Your task to perform on an android device: open the mobile data screen to see how much data has been used Image 0: 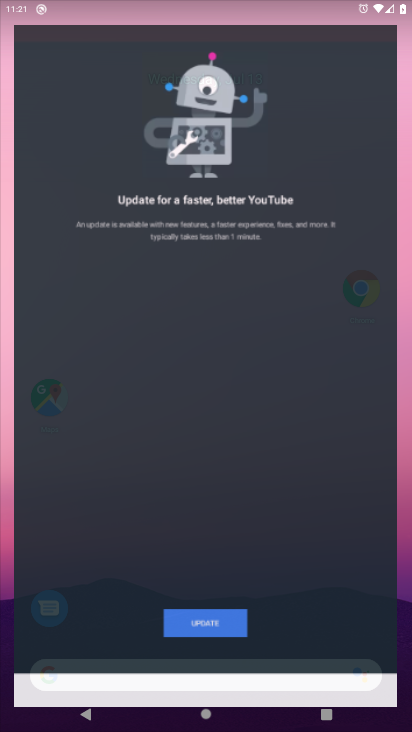
Step 0: click (117, 666)
Your task to perform on an android device: open the mobile data screen to see how much data has been used Image 1: 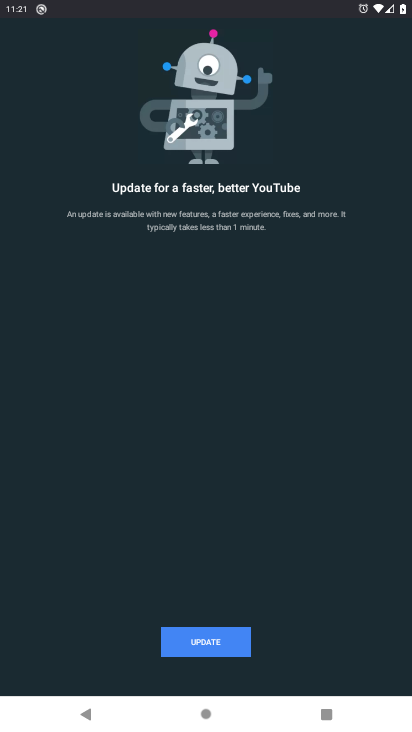
Step 1: press home button
Your task to perform on an android device: open the mobile data screen to see how much data has been used Image 2: 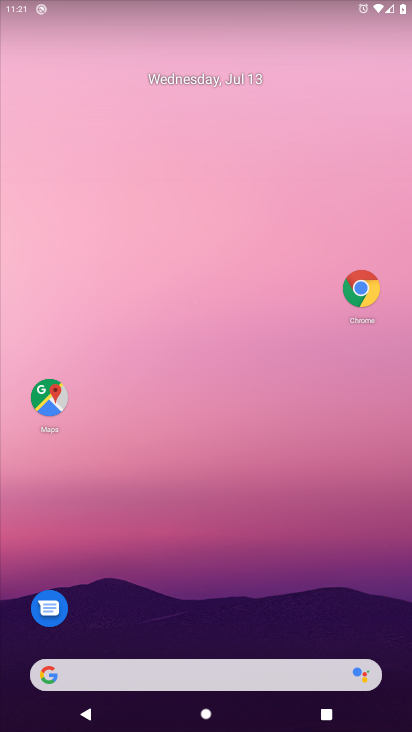
Step 2: drag from (25, 701) to (200, 141)
Your task to perform on an android device: open the mobile data screen to see how much data has been used Image 3: 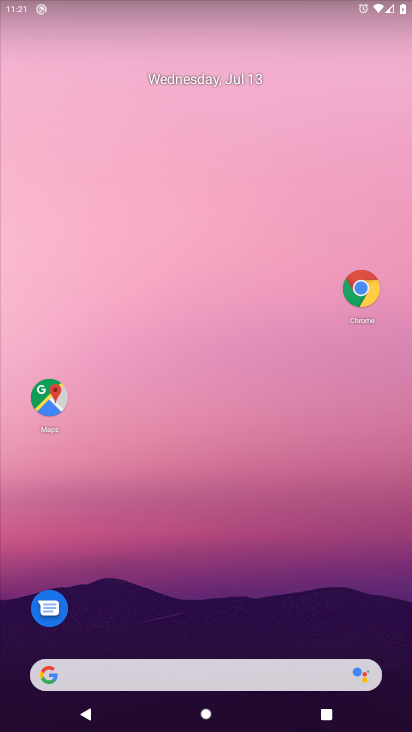
Step 3: drag from (28, 705) to (140, 138)
Your task to perform on an android device: open the mobile data screen to see how much data has been used Image 4: 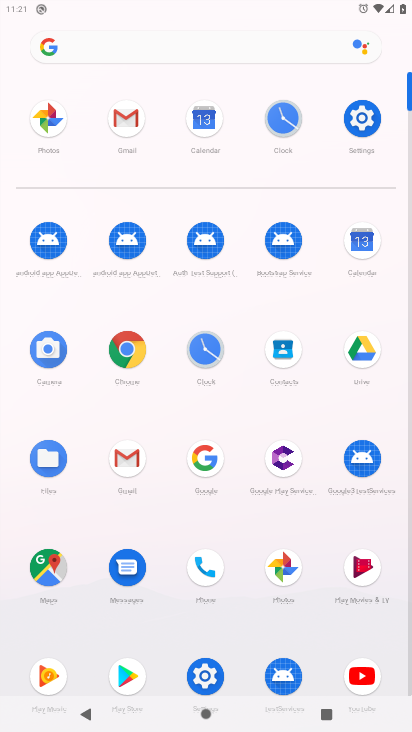
Step 4: click (193, 670)
Your task to perform on an android device: open the mobile data screen to see how much data has been used Image 5: 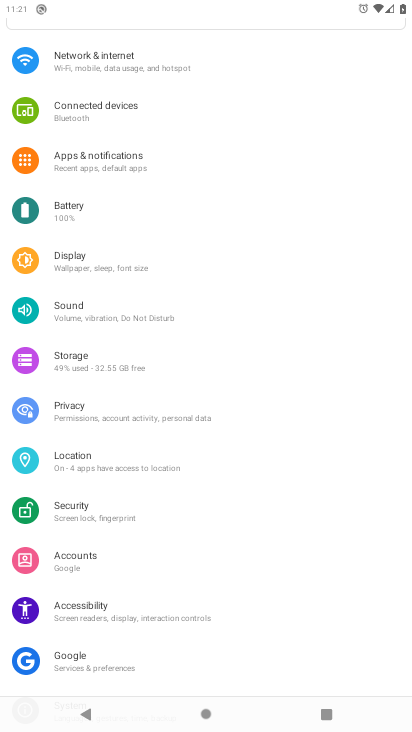
Step 5: click (112, 51)
Your task to perform on an android device: open the mobile data screen to see how much data has been used Image 6: 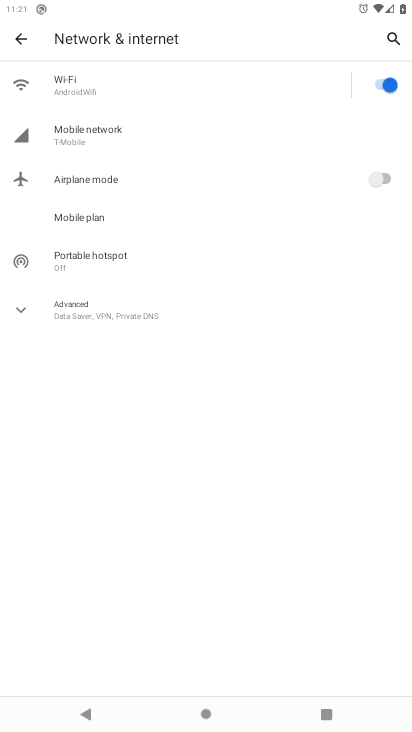
Step 6: click (98, 133)
Your task to perform on an android device: open the mobile data screen to see how much data has been used Image 7: 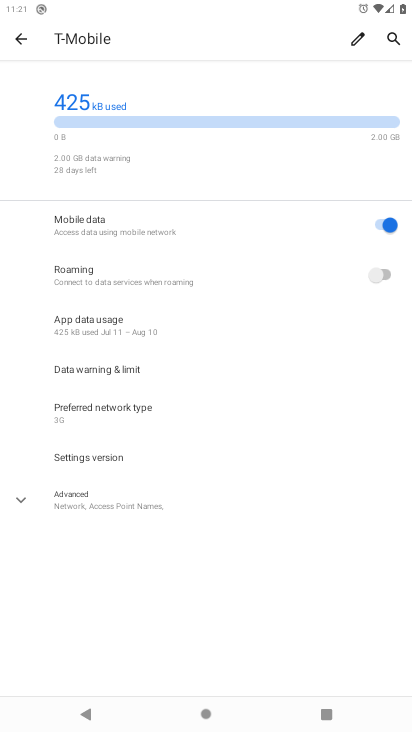
Step 7: task complete